Your task to perform on an android device: Open calendar and show me the first week of next month Image 0: 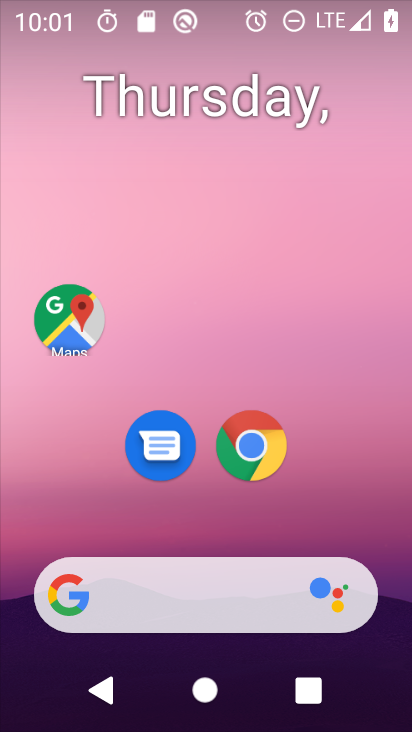
Step 0: drag from (205, 514) to (263, 37)
Your task to perform on an android device: Open calendar and show me the first week of next month Image 1: 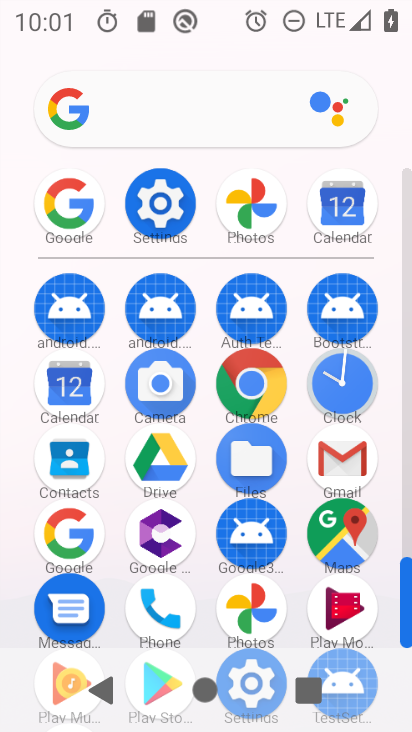
Step 1: drag from (200, 585) to (237, 295)
Your task to perform on an android device: Open calendar and show me the first week of next month Image 2: 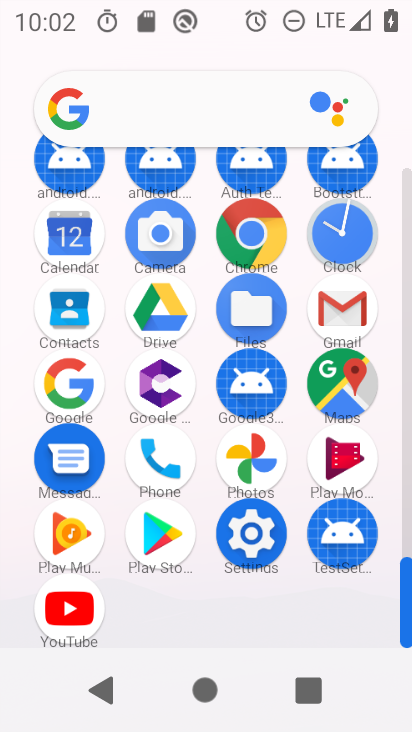
Step 2: click (60, 242)
Your task to perform on an android device: Open calendar and show me the first week of next month Image 3: 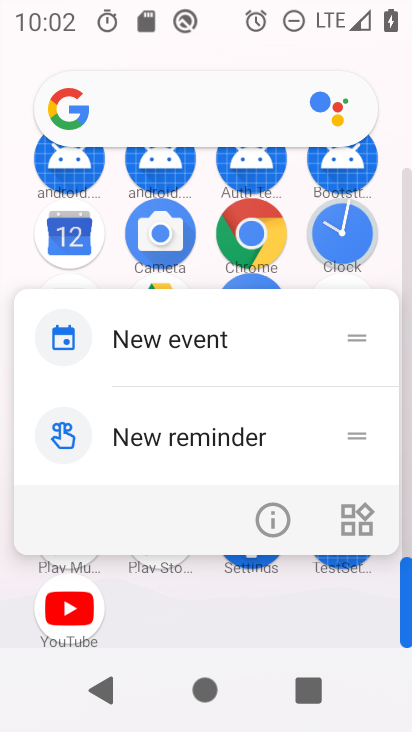
Step 3: click (263, 515)
Your task to perform on an android device: Open calendar and show me the first week of next month Image 4: 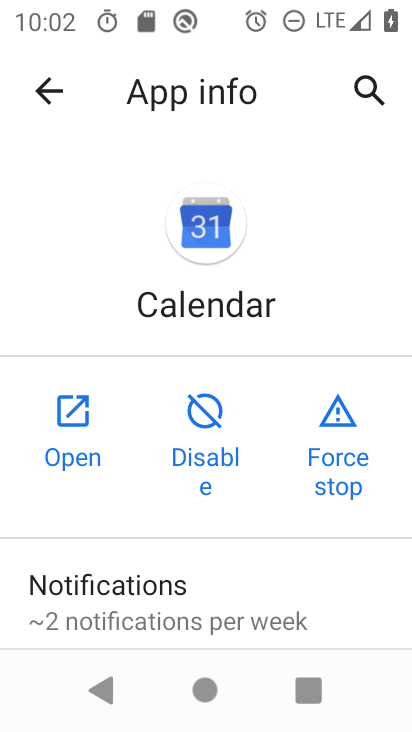
Step 4: click (41, 418)
Your task to perform on an android device: Open calendar and show me the first week of next month Image 5: 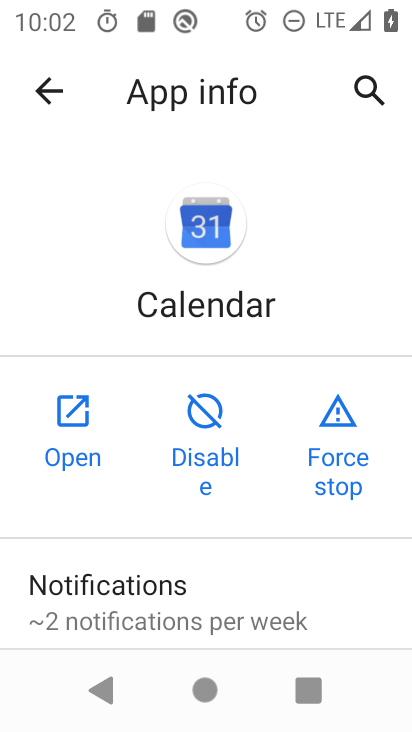
Step 5: click (47, 419)
Your task to perform on an android device: Open calendar and show me the first week of next month Image 6: 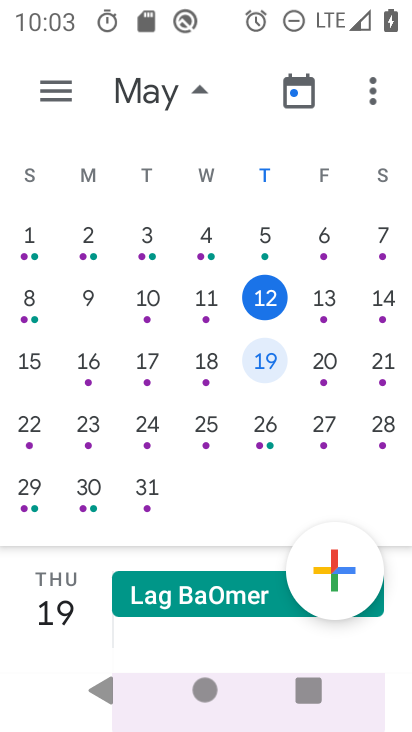
Step 6: drag from (353, 348) to (12, 379)
Your task to perform on an android device: Open calendar and show me the first week of next month Image 7: 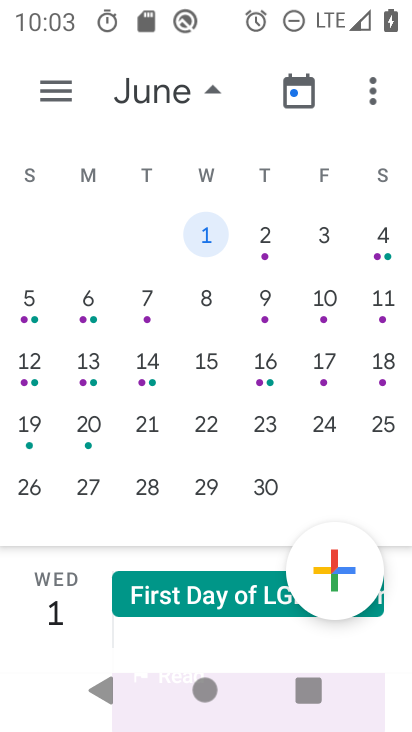
Step 7: click (279, 239)
Your task to perform on an android device: Open calendar and show me the first week of next month Image 8: 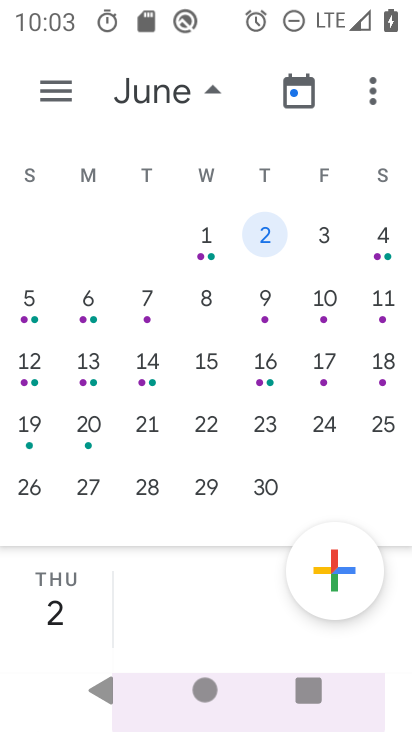
Step 8: task complete